Your task to perform on an android device: turn off airplane mode Image 0: 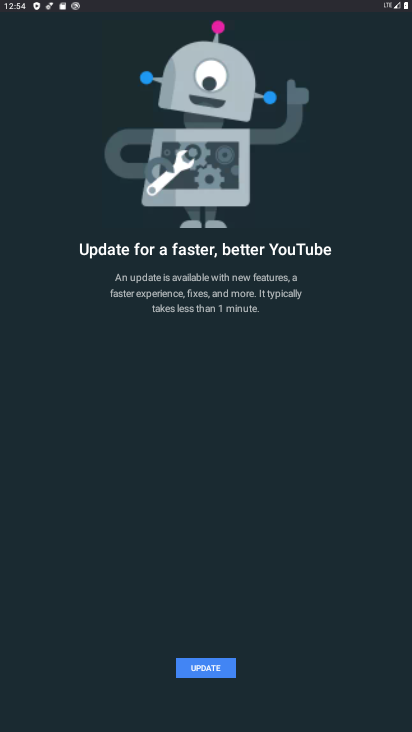
Step 0: press home button
Your task to perform on an android device: turn off airplane mode Image 1: 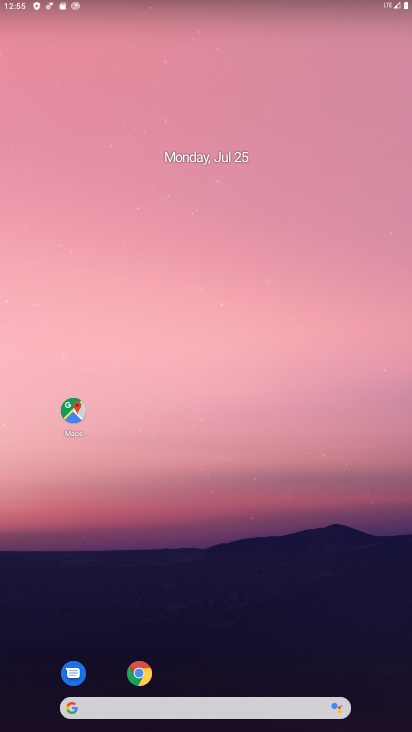
Step 1: drag from (191, 715) to (108, 13)
Your task to perform on an android device: turn off airplane mode Image 2: 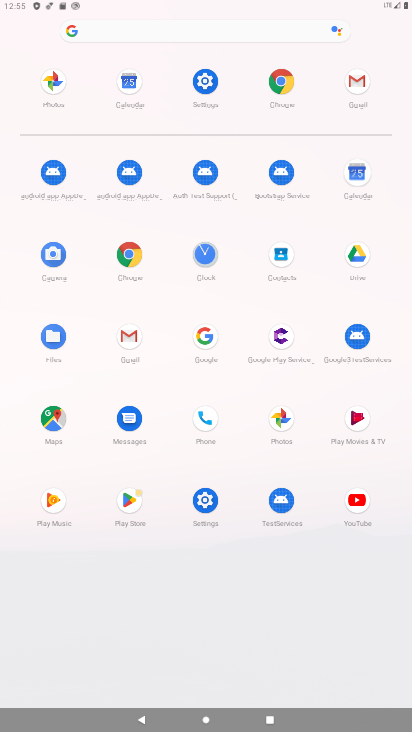
Step 2: click (206, 77)
Your task to perform on an android device: turn off airplane mode Image 3: 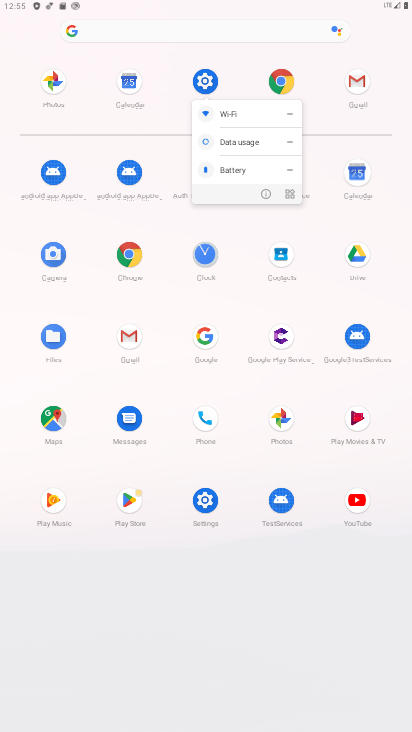
Step 3: click (206, 77)
Your task to perform on an android device: turn off airplane mode Image 4: 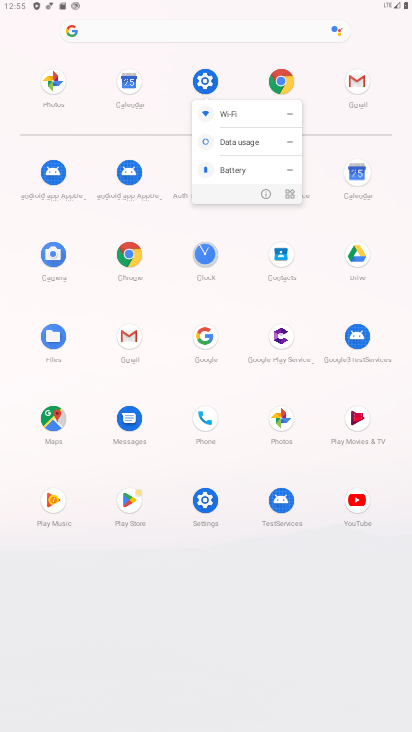
Step 4: click (206, 77)
Your task to perform on an android device: turn off airplane mode Image 5: 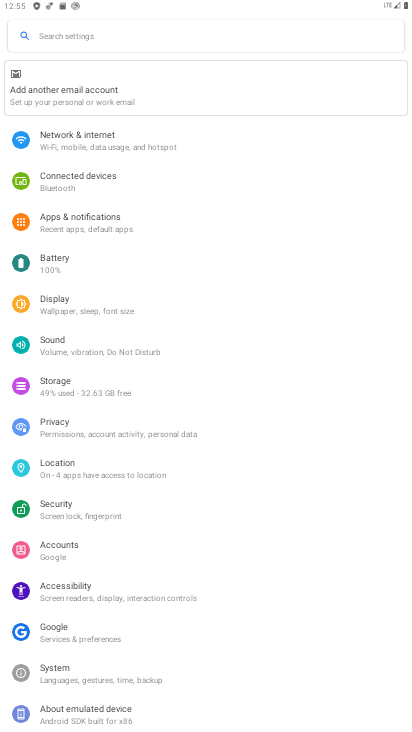
Step 5: click (153, 135)
Your task to perform on an android device: turn off airplane mode Image 6: 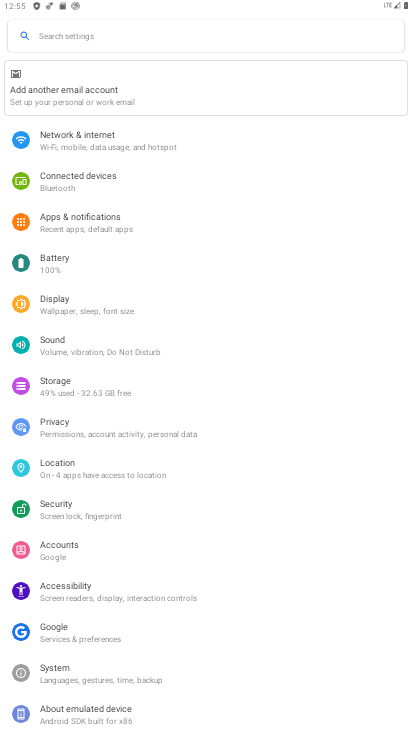
Step 6: click (153, 135)
Your task to perform on an android device: turn off airplane mode Image 7: 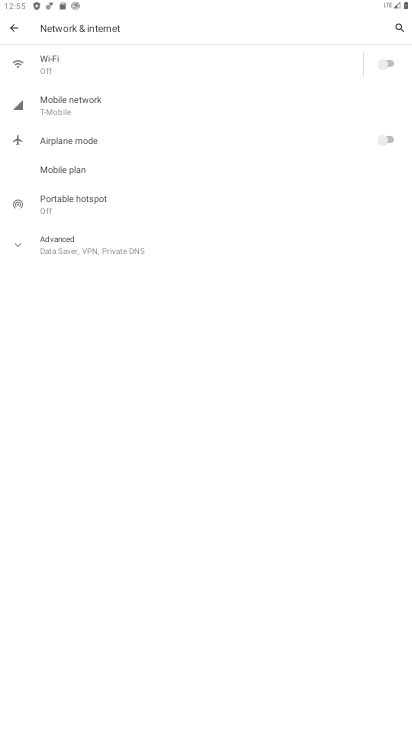
Step 7: task complete